Your task to perform on an android device: Open Google Chrome and open the bookmarks view Image 0: 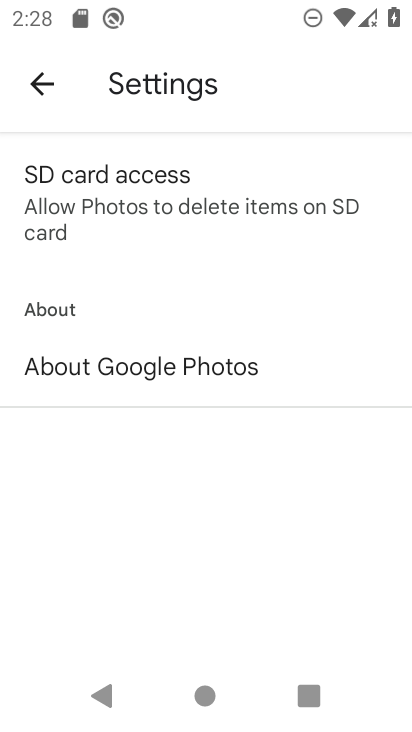
Step 0: press home button
Your task to perform on an android device: Open Google Chrome and open the bookmarks view Image 1: 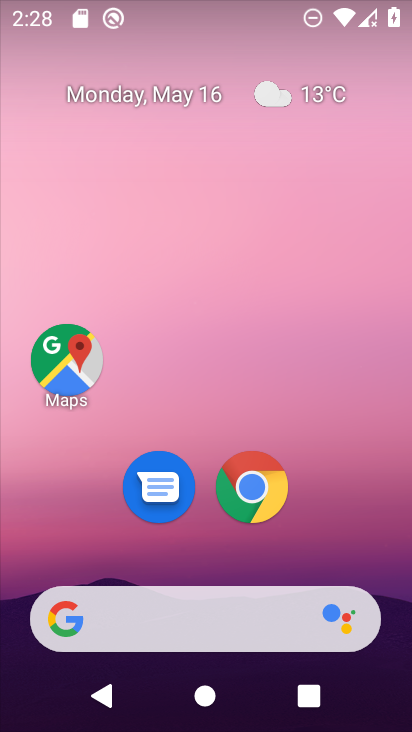
Step 1: click (251, 493)
Your task to perform on an android device: Open Google Chrome and open the bookmarks view Image 2: 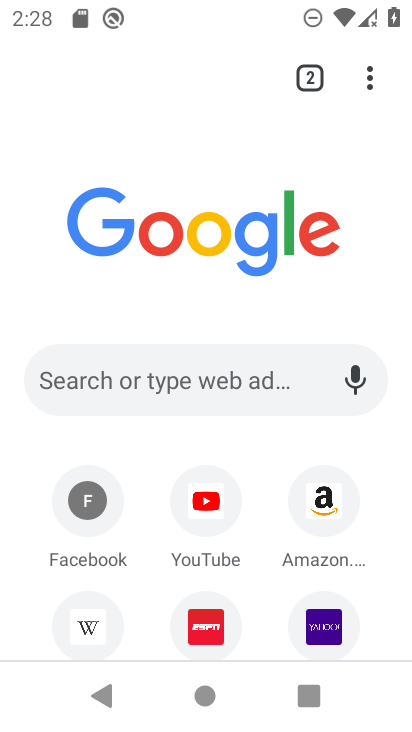
Step 2: click (365, 77)
Your task to perform on an android device: Open Google Chrome and open the bookmarks view Image 3: 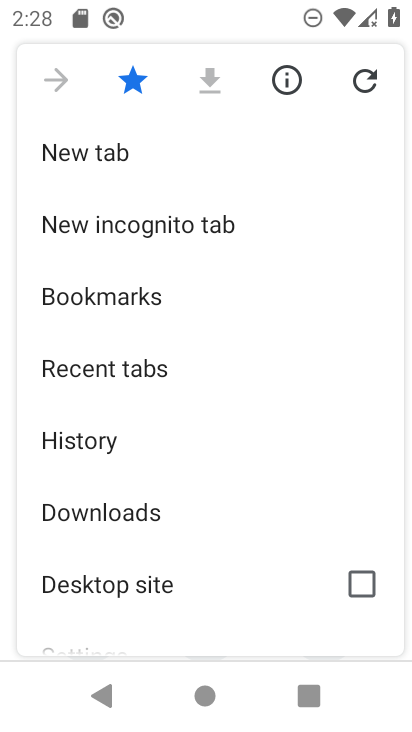
Step 3: click (110, 302)
Your task to perform on an android device: Open Google Chrome and open the bookmarks view Image 4: 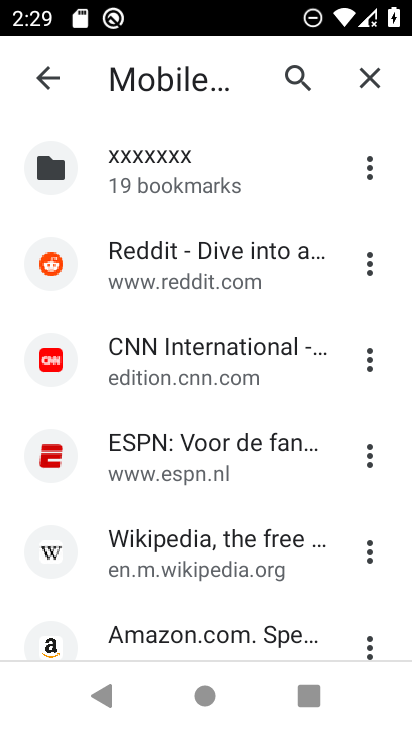
Step 4: task complete